Your task to perform on an android device: toggle sleep mode Image 0: 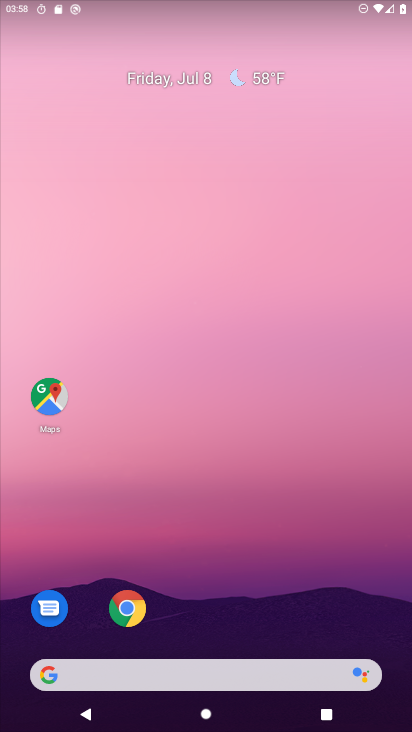
Step 0: drag from (245, 720) to (223, 100)
Your task to perform on an android device: toggle sleep mode Image 1: 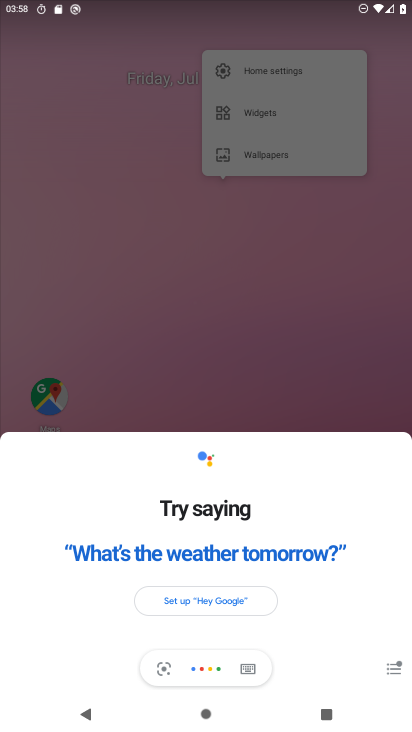
Step 1: click (241, 341)
Your task to perform on an android device: toggle sleep mode Image 2: 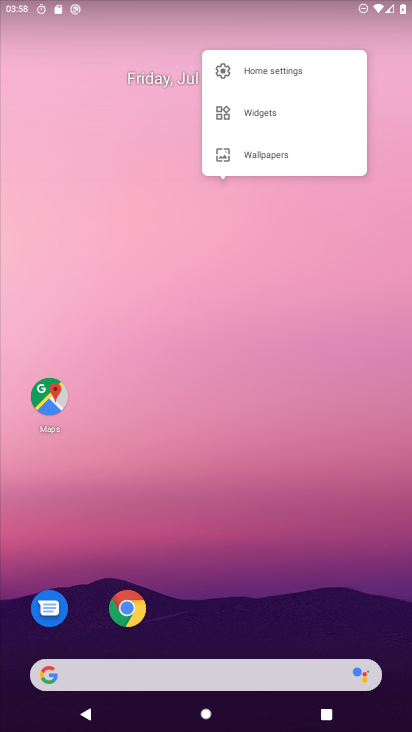
Step 2: press home button
Your task to perform on an android device: toggle sleep mode Image 3: 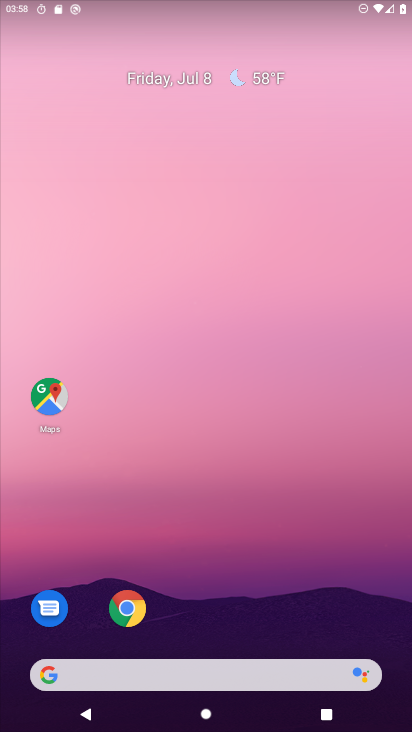
Step 3: drag from (242, 724) to (231, 180)
Your task to perform on an android device: toggle sleep mode Image 4: 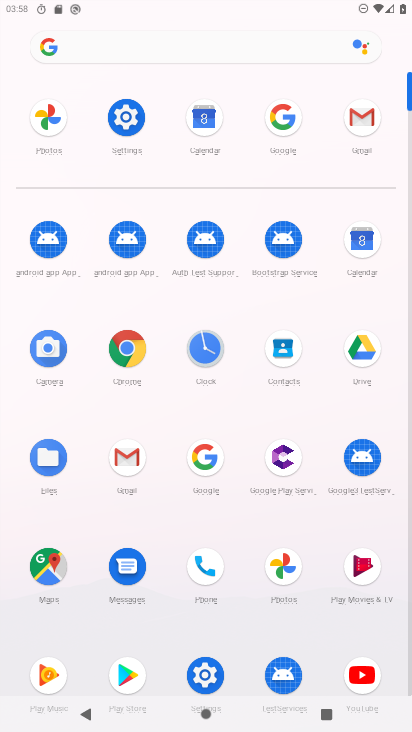
Step 4: click (131, 110)
Your task to perform on an android device: toggle sleep mode Image 5: 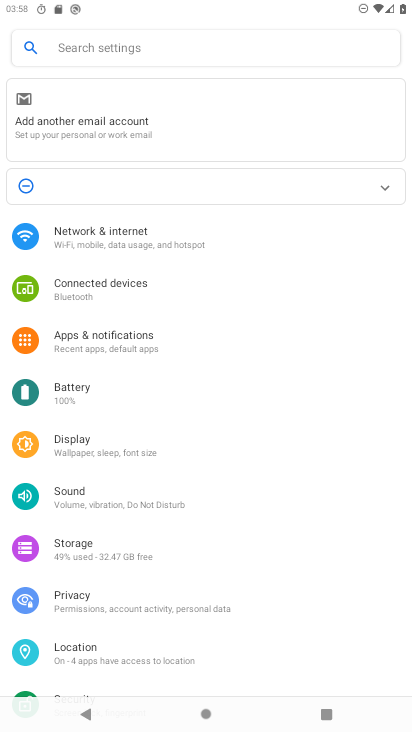
Step 5: click (108, 449)
Your task to perform on an android device: toggle sleep mode Image 6: 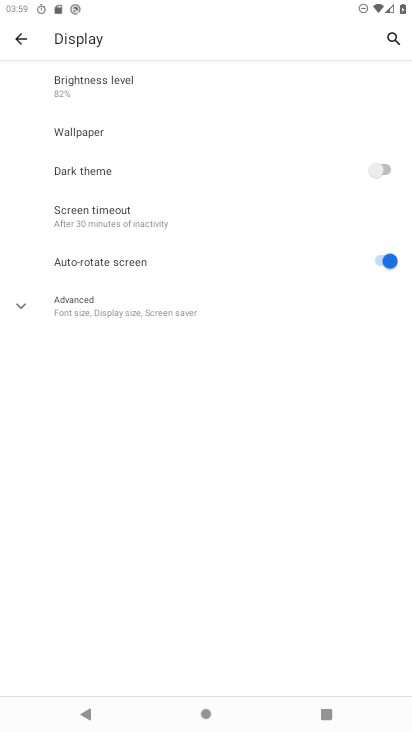
Step 6: task complete